Your task to perform on an android device: Open calendar and show me the fourth week of next month Image 0: 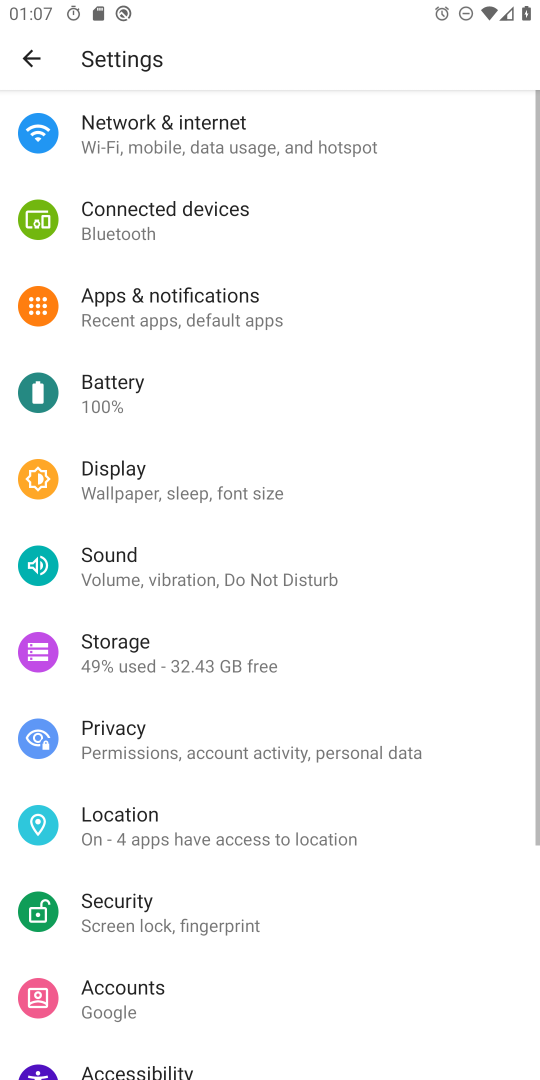
Step 0: click (253, 113)
Your task to perform on an android device: Open calendar and show me the fourth week of next month Image 1: 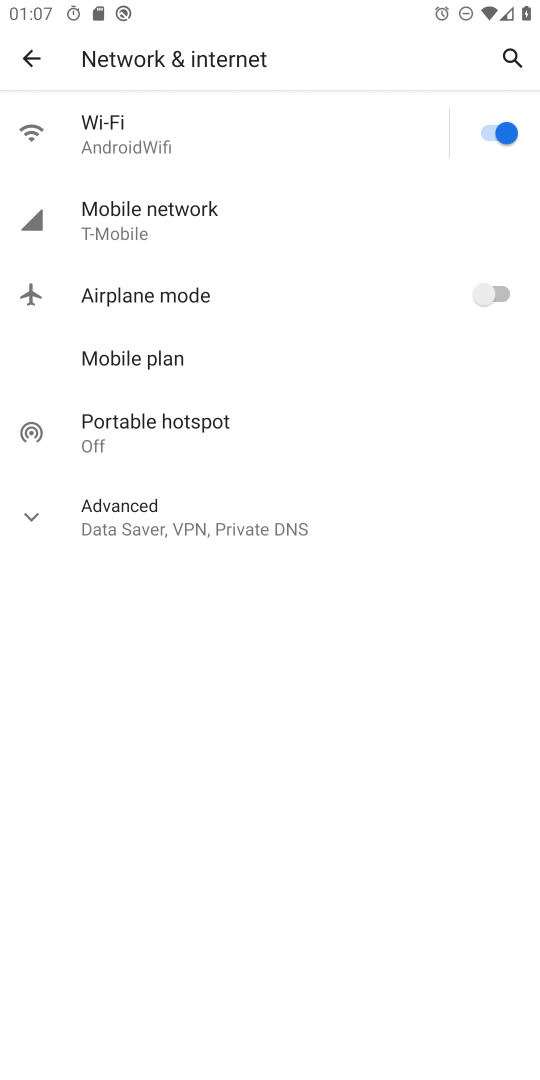
Step 1: press home button
Your task to perform on an android device: Open calendar and show me the fourth week of next month Image 2: 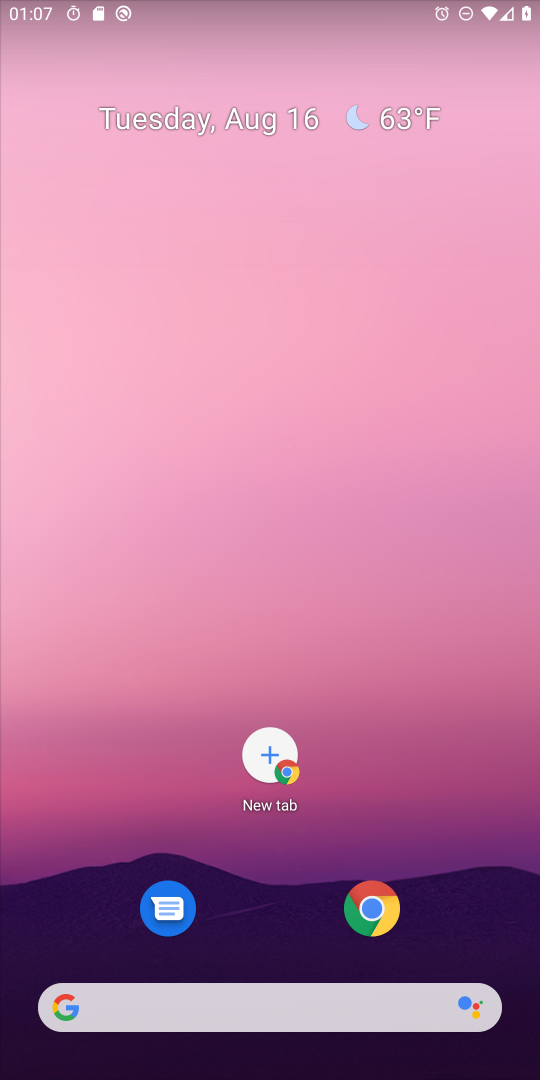
Step 2: click (217, 125)
Your task to perform on an android device: Open calendar and show me the fourth week of next month Image 3: 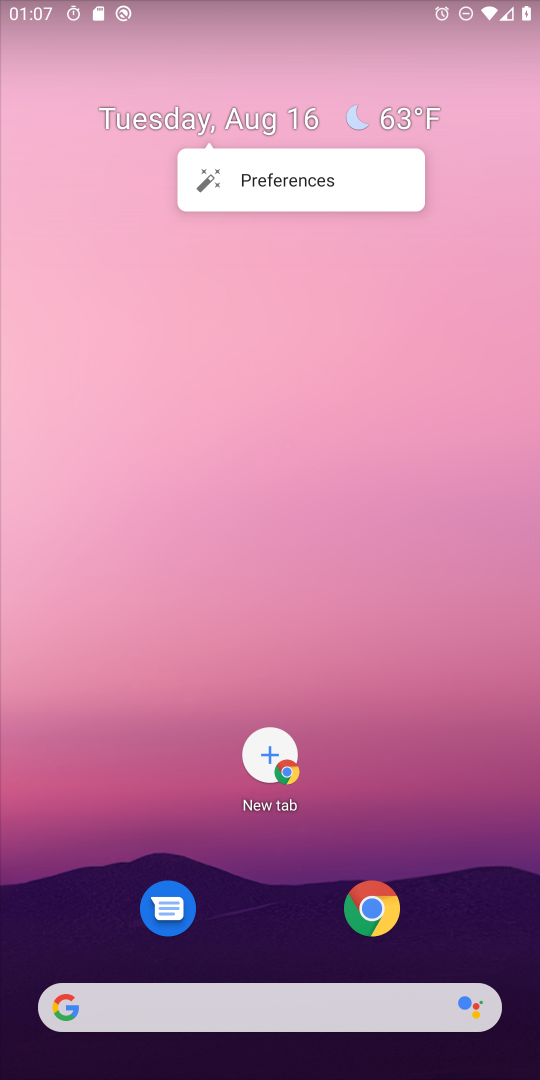
Step 3: click (193, 115)
Your task to perform on an android device: Open calendar and show me the fourth week of next month Image 4: 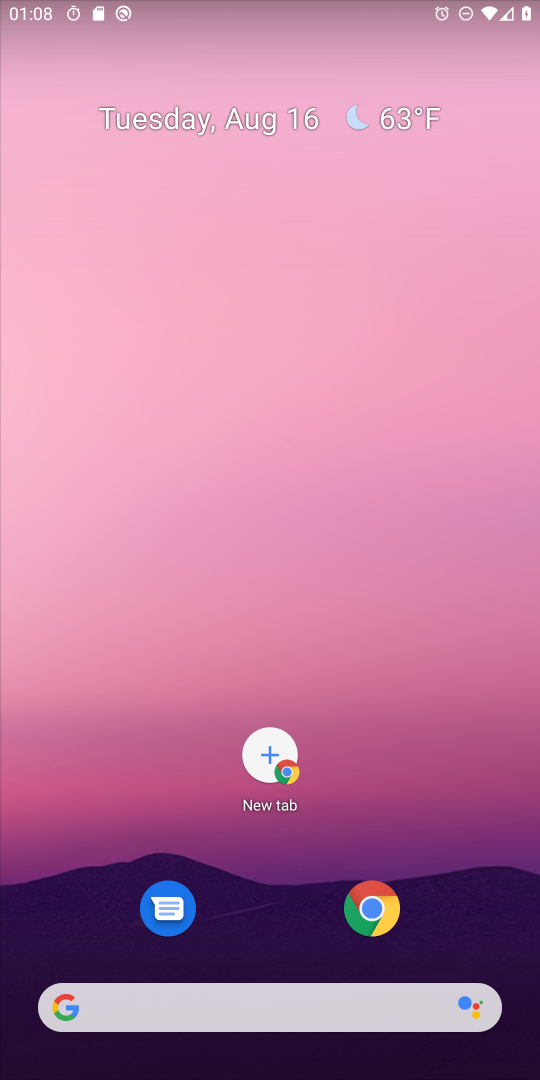
Step 4: click (193, 115)
Your task to perform on an android device: Open calendar and show me the fourth week of next month Image 5: 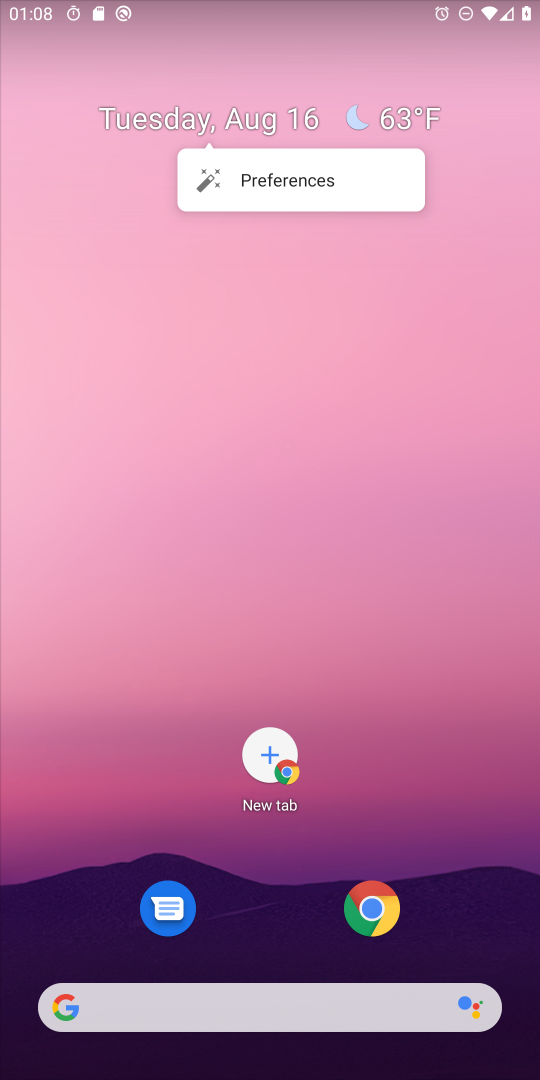
Step 5: click (193, 115)
Your task to perform on an android device: Open calendar and show me the fourth week of next month Image 6: 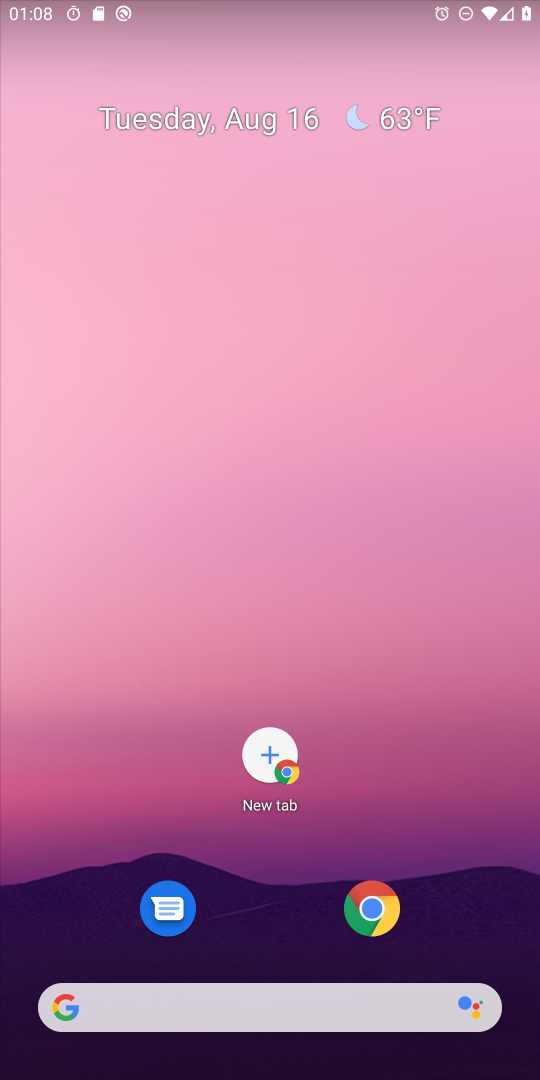
Step 6: click (176, 123)
Your task to perform on an android device: Open calendar and show me the fourth week of next month Image 7: 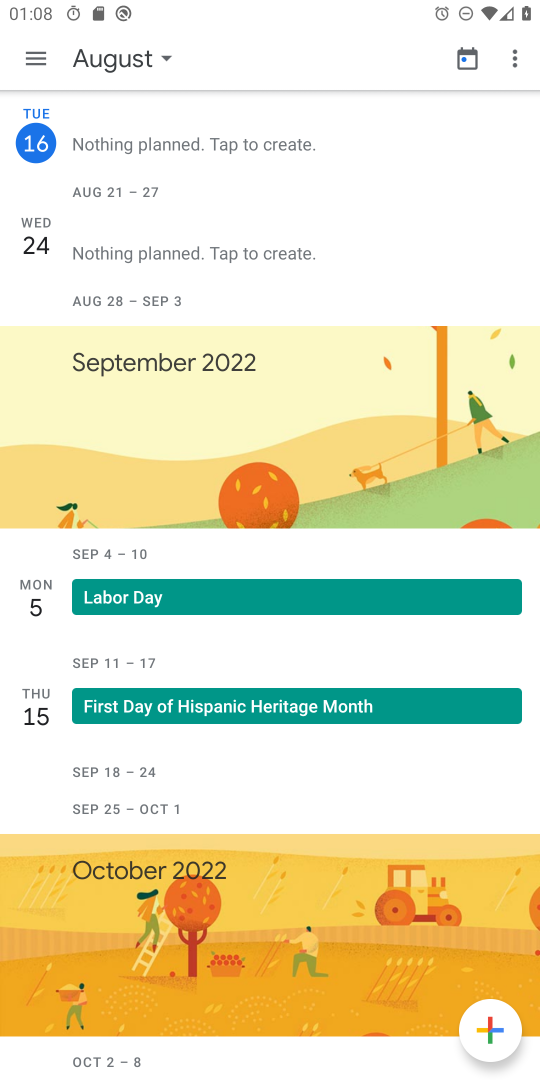
Step 7: click (153, 56)
Your task to perform on an android device: Open calendar and show me the fourth week of next month Image 8: 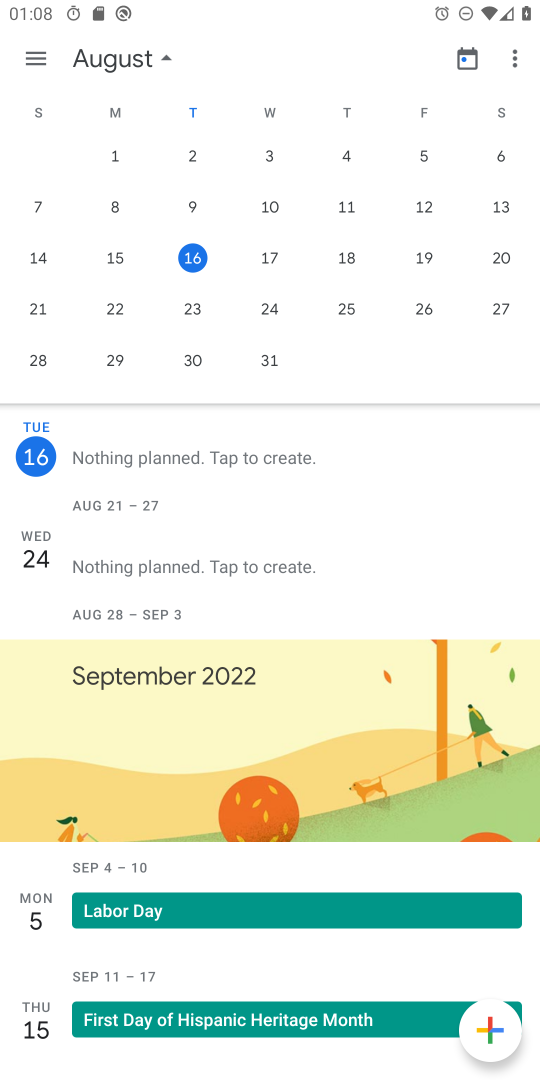
Step 8: drag from (410, 351) to (2, 274)
Your task to perform on an android device: Open calendar and show me the fourth week of next month Image 9: 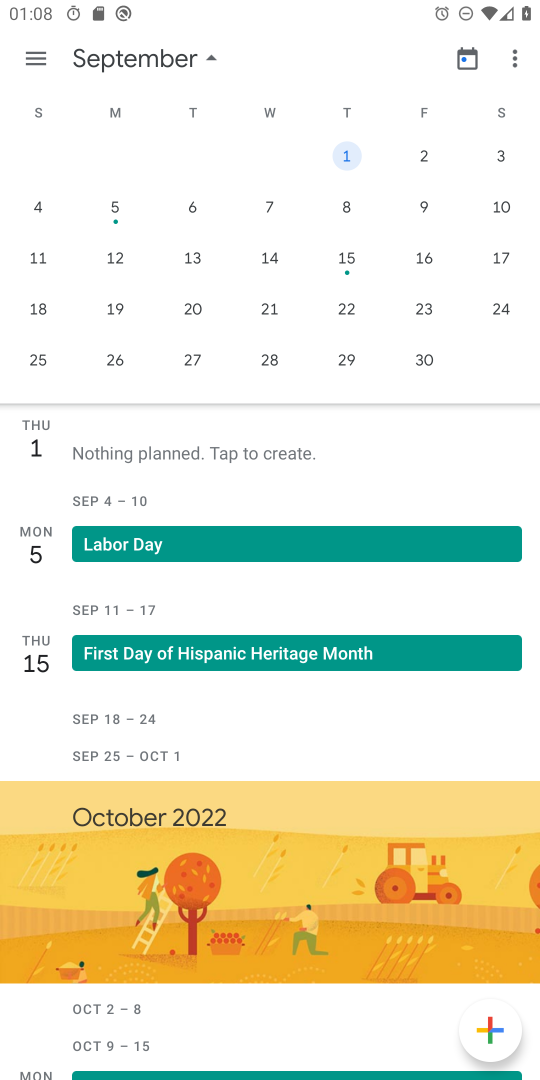
Step 9: drag from (468, 381) to (332, 401)
Your task to perform on an android device: Open calendar and show me the fourth week of next month Image 10: 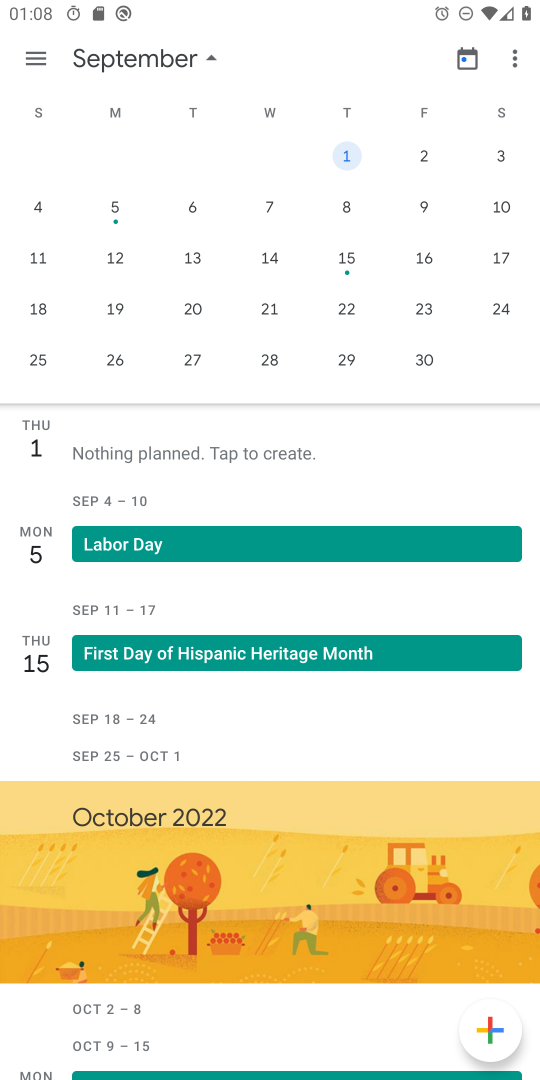
Step 10: click (350, 304)
Your task to perform on an android device: Open calendar and show me the fourth week of next month Image 11: 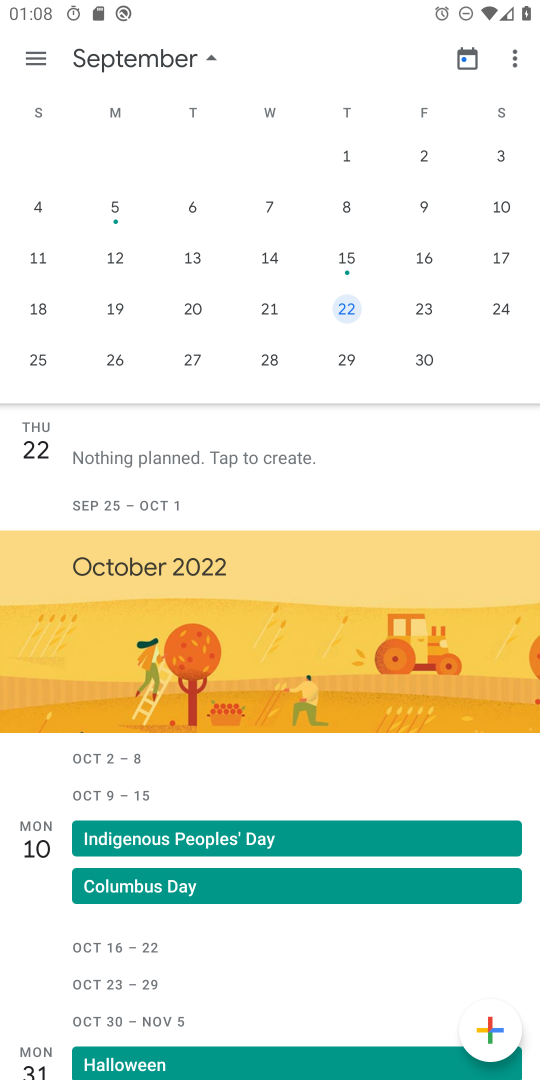
Step 11: task complete